Your task to perform on an android device: Do I have any events tomorrow? Image 0: 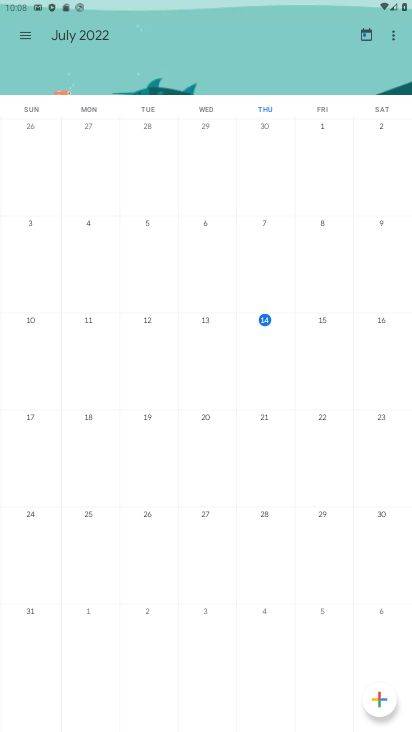
Step 0: click (325, 344)
Your task to perform on an android device: Do I have any events tomorrow? Image 1: 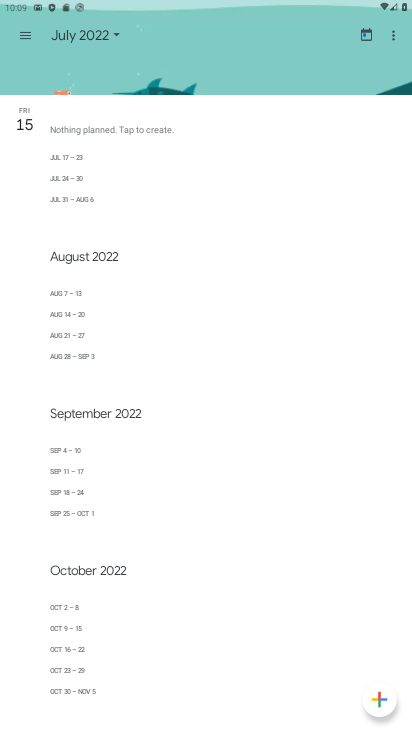
Step 1: task complete